Your task to perform on an android device: visit the assistant section in the google photos Image 0: 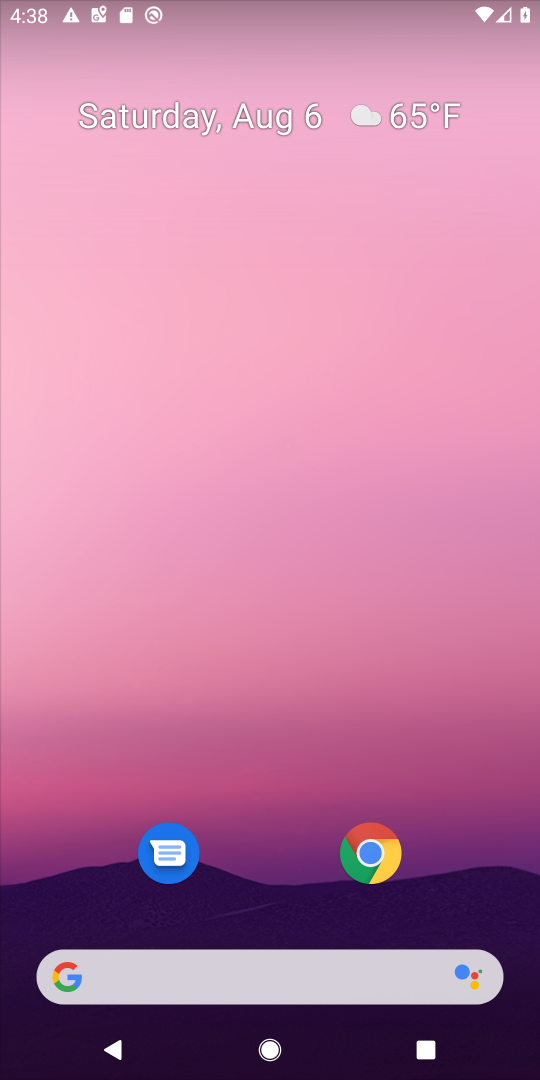
Step 0: drag from (288, 736) to (390, 82)
Your task to perform on an android device: visit the assistant section in the google photos Image 1: 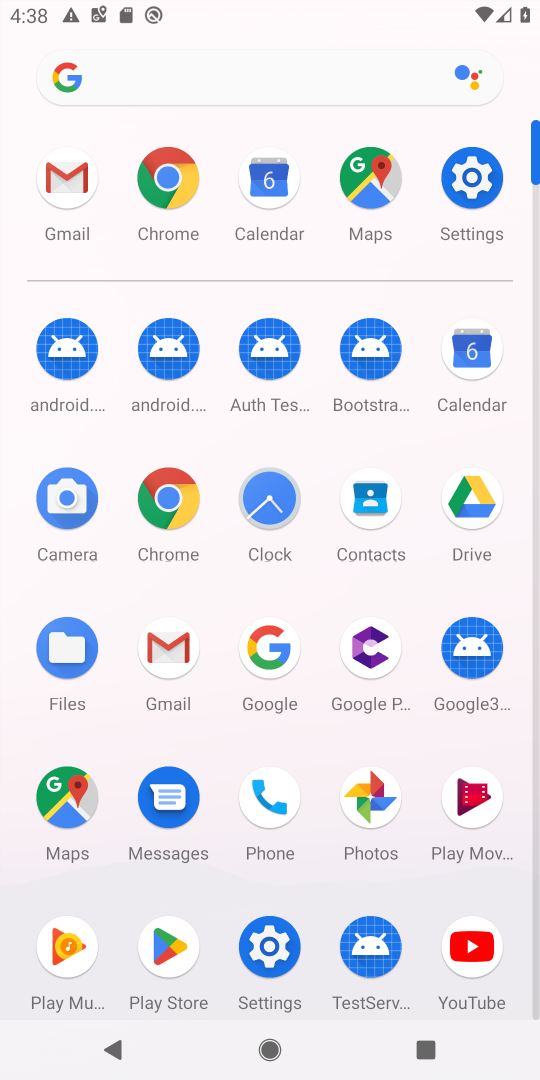
Step 1: click (360, 804)
Your task to perform on an android device: visit the assistant section in the google photos Image 2: 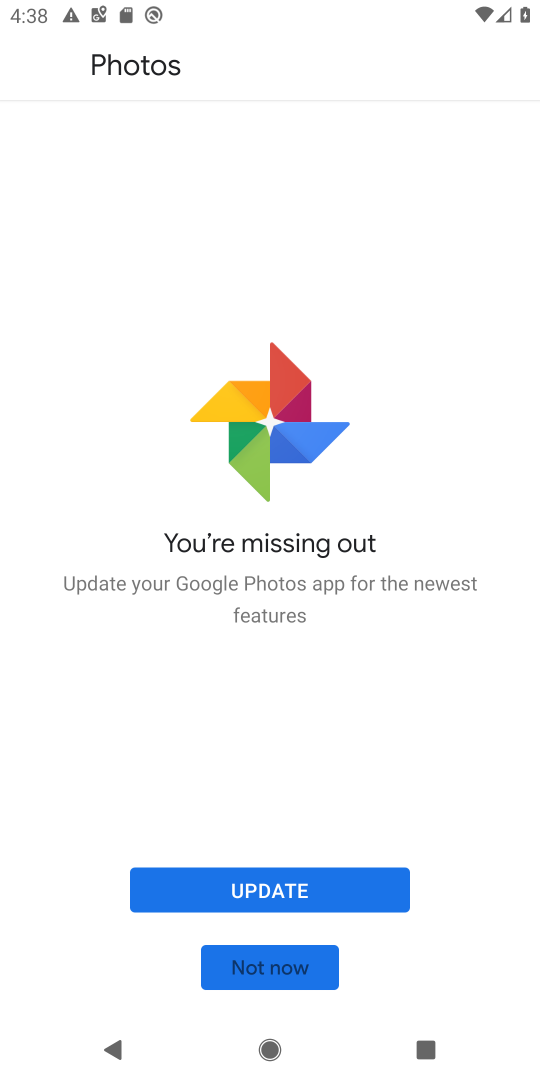
Step 2: press back button
Your task to perform on an android device: visit the assistant section in the google photos Image 3: 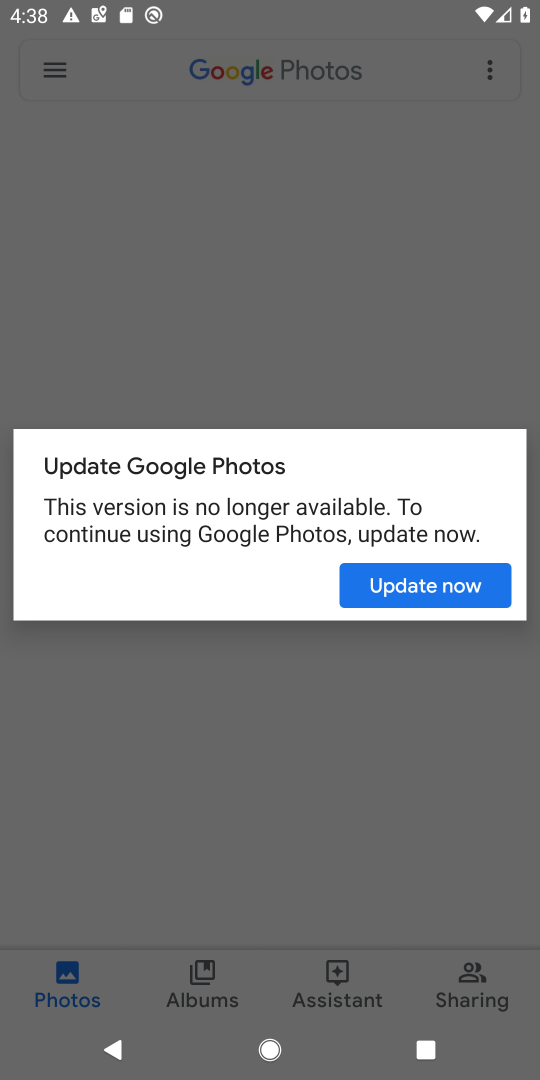
Step 3: press back button
Your task to perform on an android device: visit the assistant section in the google photos Image 4: 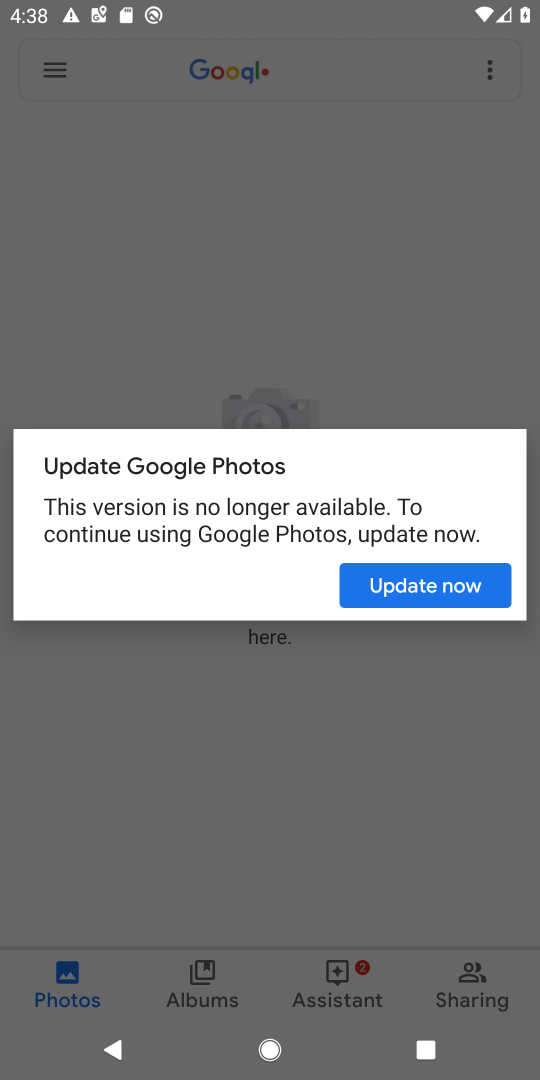
Step 4: press home button
Your task to perform on an android device: visit the assistant section in the google photos Image 5: 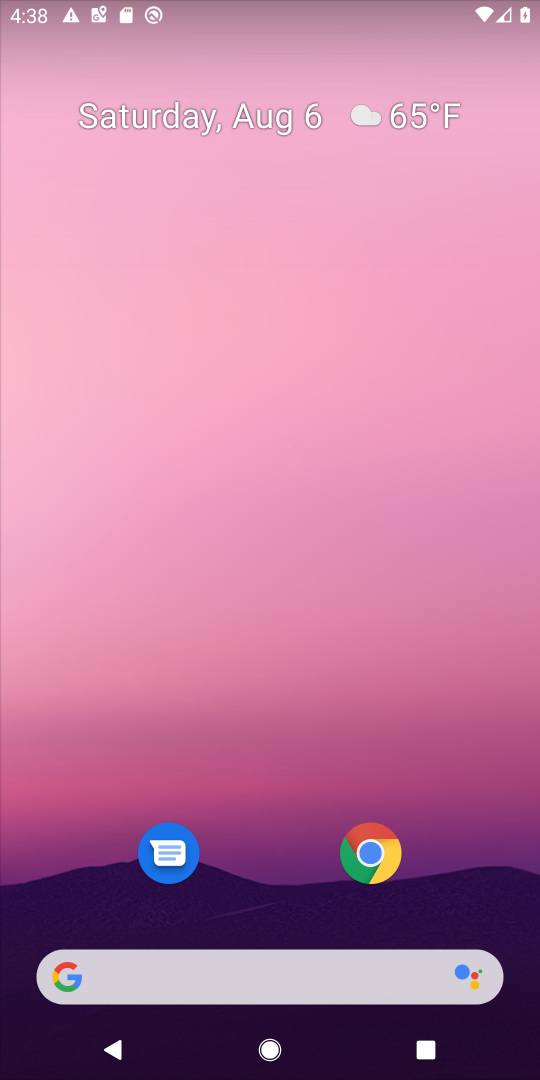
Step 5: drag from (238, 924) to (380, 98)
Your task to perform on an android device: visit the assistant section in the google photos Image 6: 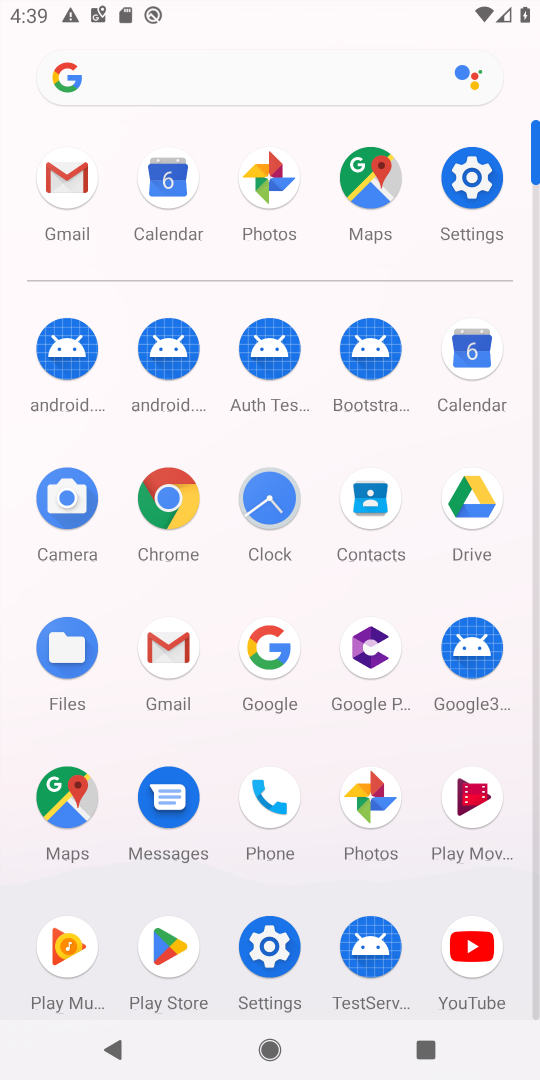
Step 6: click (376, 808)
Your task to perform on an android device: visit the assistant section in the google photos Image 7: 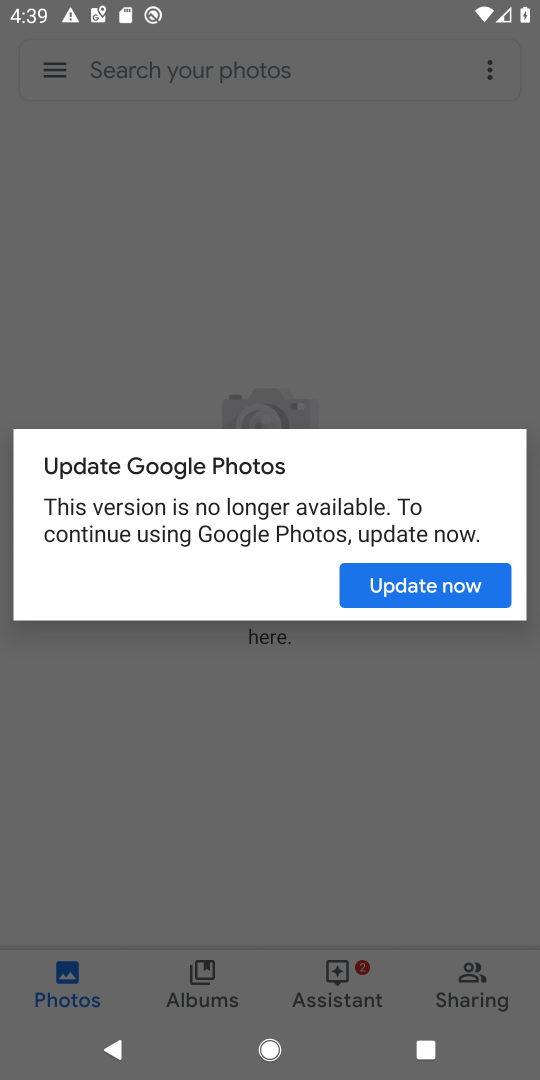
Step 7: click (385, 592)
Your task to perform on an android device: visit the assistant section in the google photos Image 8: 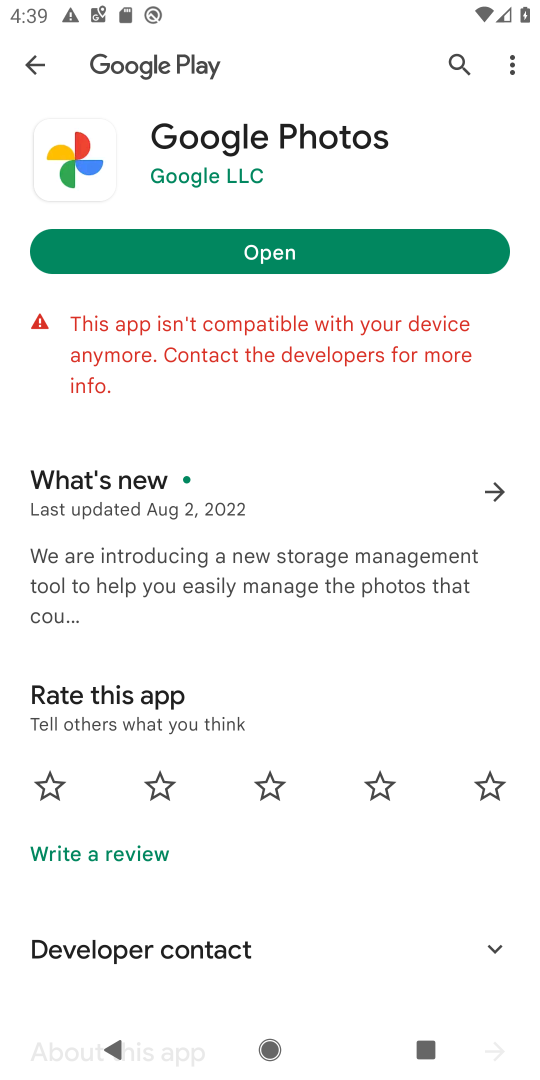
Step 8: click (334, 243)
Your task to perform on an android device: visit the assistant section in the google photos Image 9: 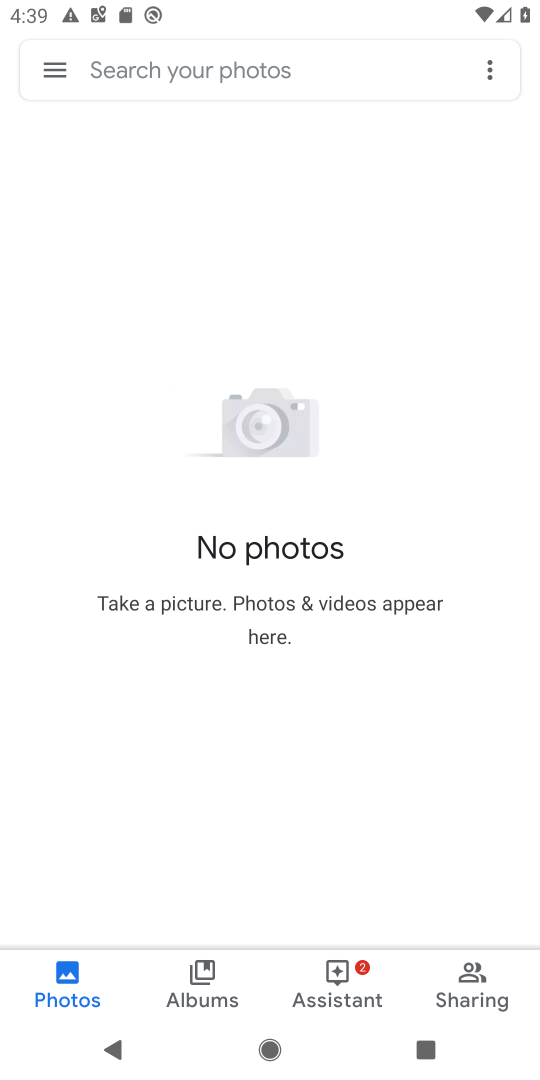
Step 9: click (351, 991)
Your task to perform on an android device: visit the assistant section in the google photos Image 10: 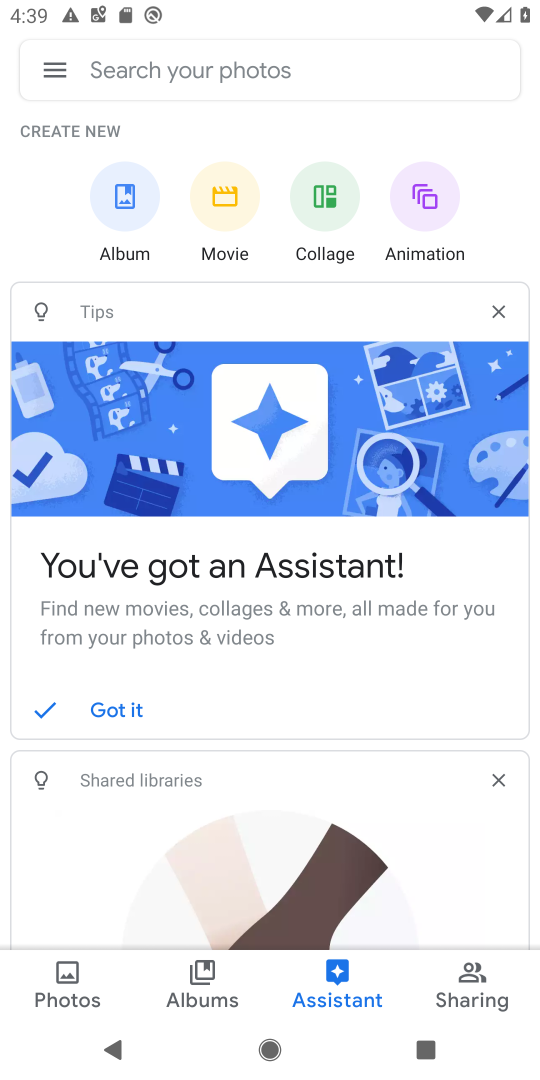
Step 10: task complete